Your task to perform on an android device: Search for vegetarian restaurants on Maps Image 0: 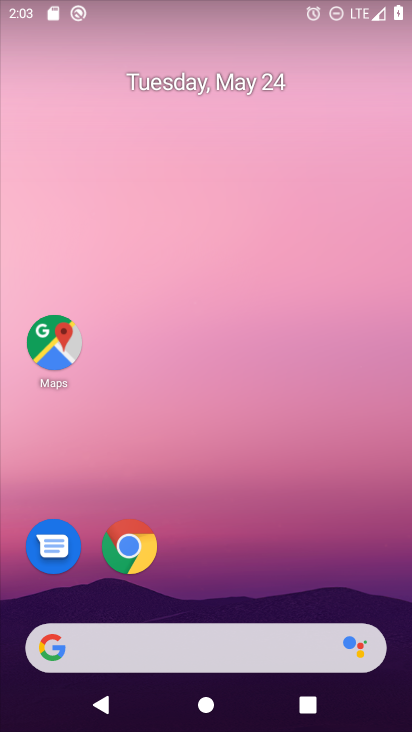
Step 0: drag from (262, 636) to (328, 143)
Your task to perform on an android device: Search for vegetarian restaurants on Maps Image 1: 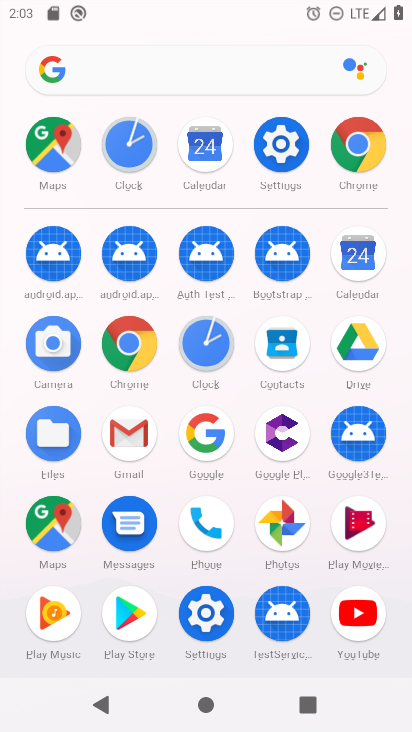
Step 1: click (49, 519)
Your task to perform on an android device: Search for vegetarian restaurants on Maps Image 2: 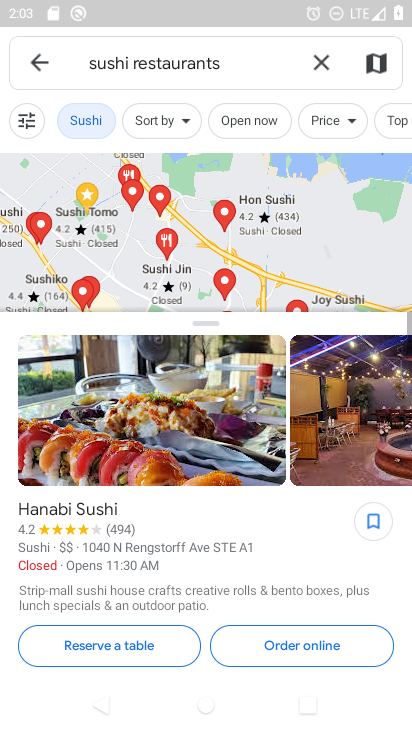
Step 2: click (324, 61)
Your task to perform on an android device: Search for vegetarian restaurants on Maps Image 3: 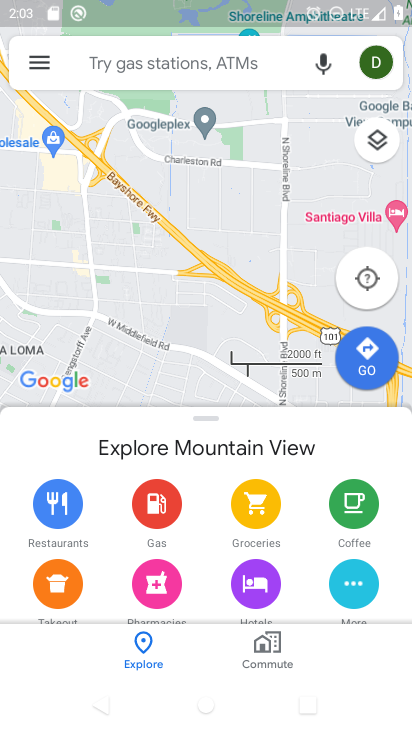
Step 3: click (226, 58)
Your task to perform on an android device: Search for vegetarian restaurants on Maps Image 4: 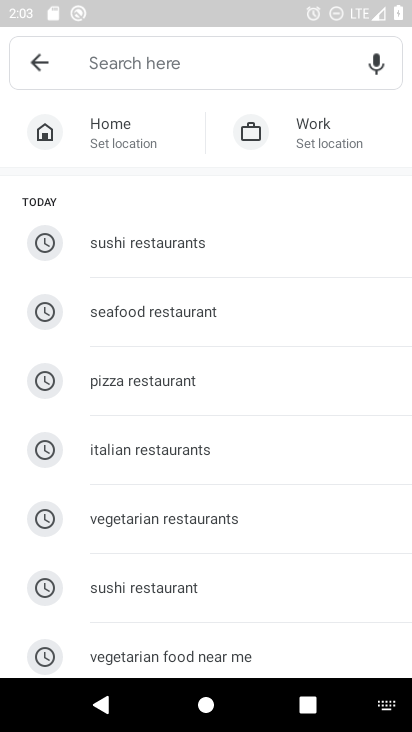
Step 4: click (137, 532)
Your task to perform on an android device: Search for vegetarian restaurants on Maps Image 5: 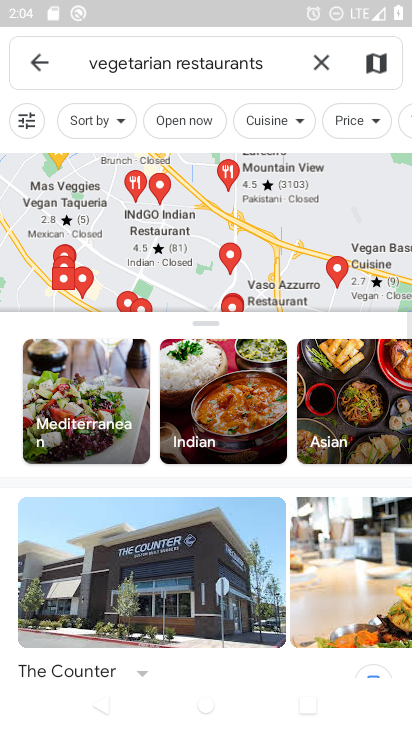
Step 5: task complete